Your task to perform on an android device: set an alarm Image 0: 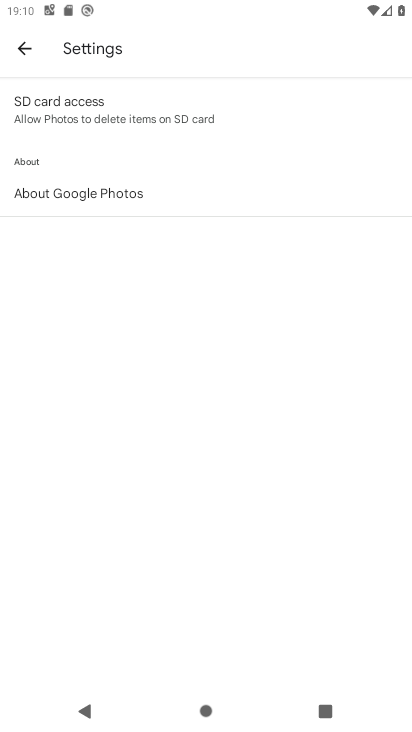
Step 0: press home button
Your task to perform on an android device: set an alarm Image 1: 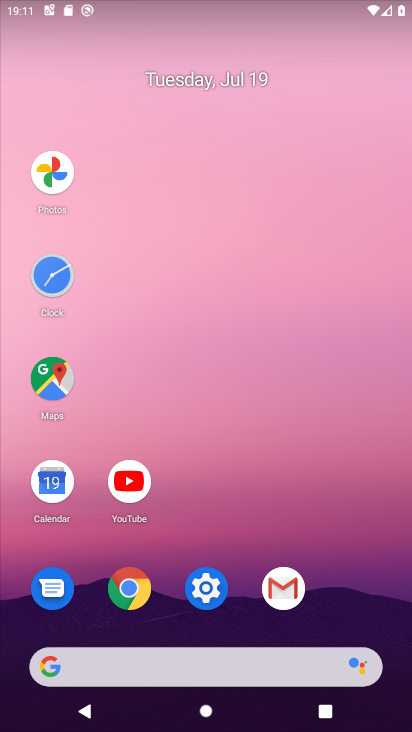
Step 1: click (46, 268)
Your task to perform on an android device: set an alarm Image 2: 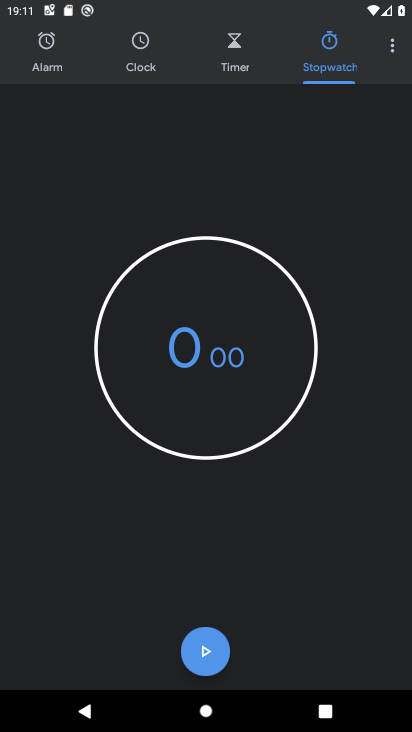
Step 2: click (48, 47)
Your task to perform on an android device: set an alarm Image 3: 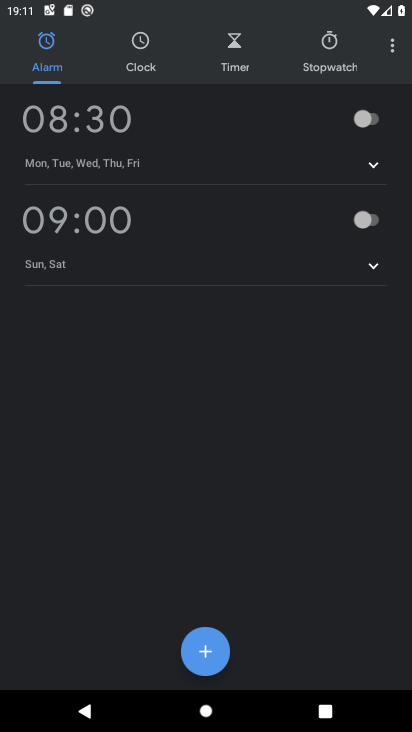
Step 3: click (201, 656)
Your task to perform on an android device: set an alarm Image 4: 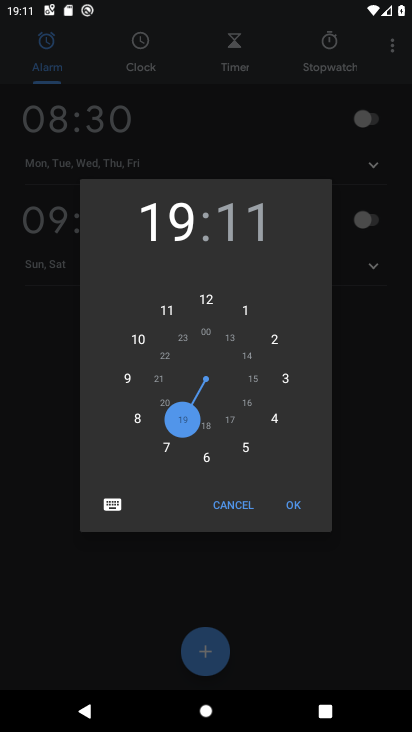
Step 4: click (295, 501)
Your task to perform on an android device: set an alarm Image 5: 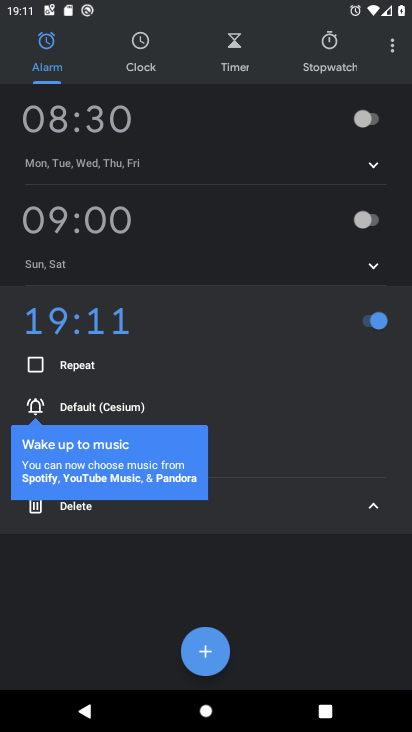
Step 5: task complete